Your task to perform on an android device: turn off notifications settings in the gmail app Image 0: 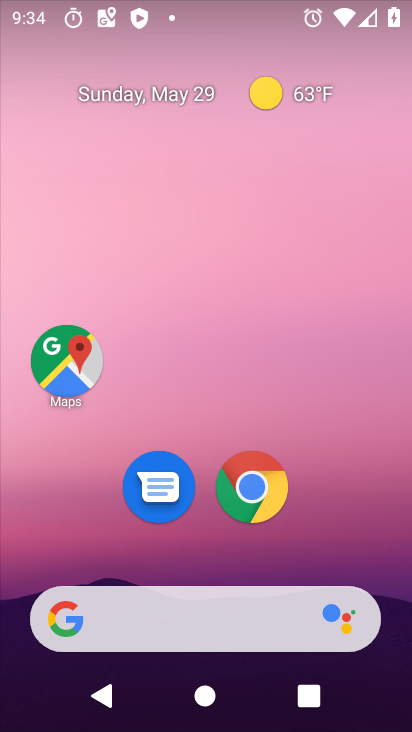
Step 0: drag from (159, 608) to (138, 91)
Your task to perform on an android device: turn off notifications settings in the gmail app Image 1: 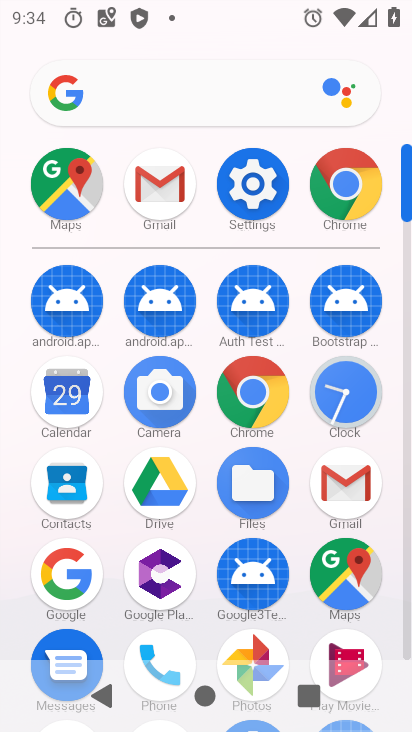
Step 1: click (346, 497)
Your task to perform on an android device: turn off notifications settings in the gmail app Image 2: 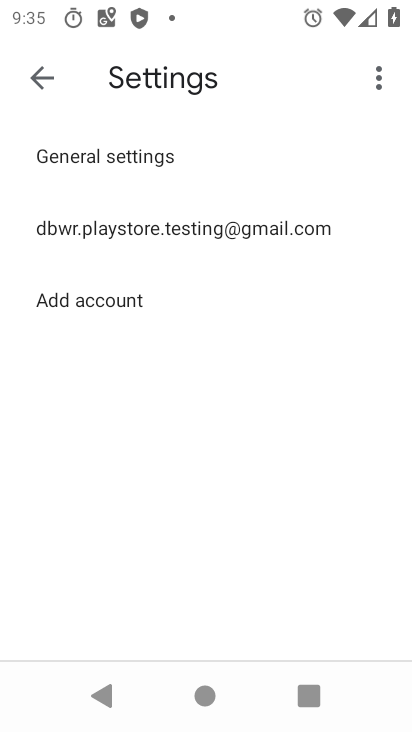
Step 2: click (42, 105)
Your task to perform on an android device: turn off notifications settings in the gmail app Image 3: 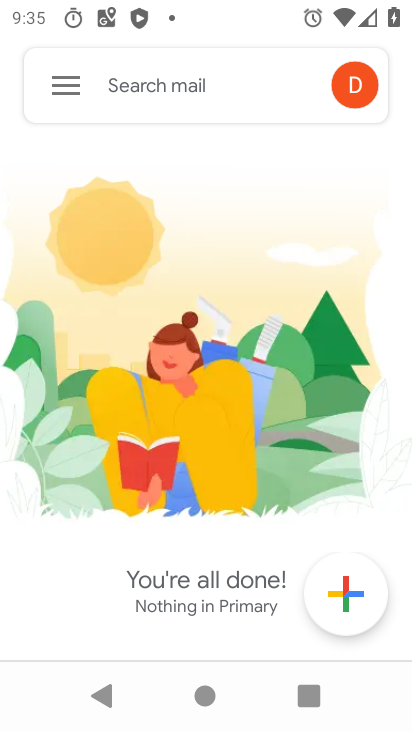
Step 3: click (61, 92)
Your task to perform on an android device: turn off notifications settings in the gmail app Image 4: 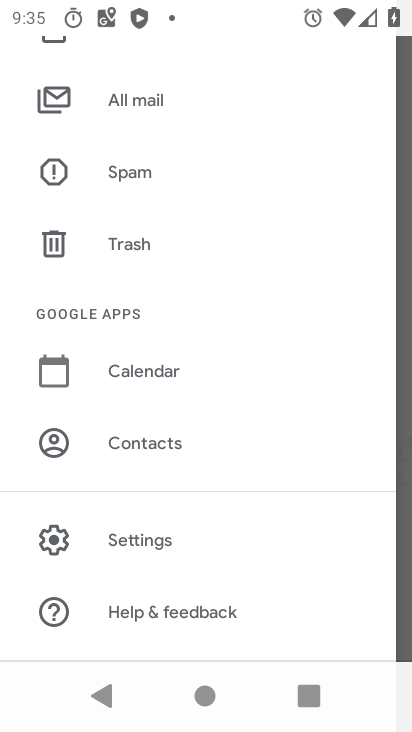
Step 4: click (109, 551)
Your task to perform on an android device: turn off notifications settings in the gmail app Image 5: 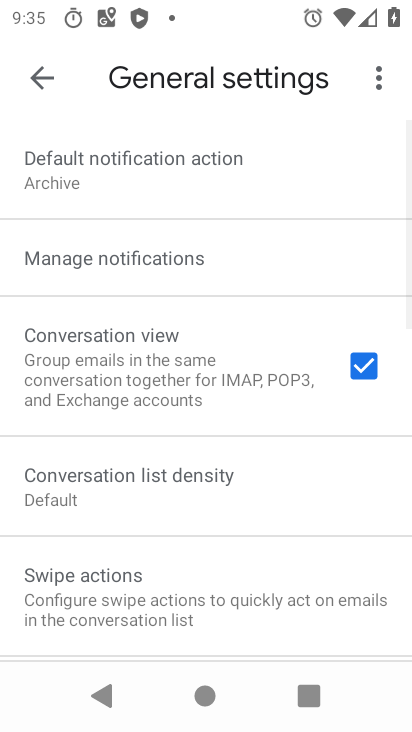
Step 5: click (230, 250)
Your task to perform on an android device: turn off notifications settings in the gmail app Image 6: 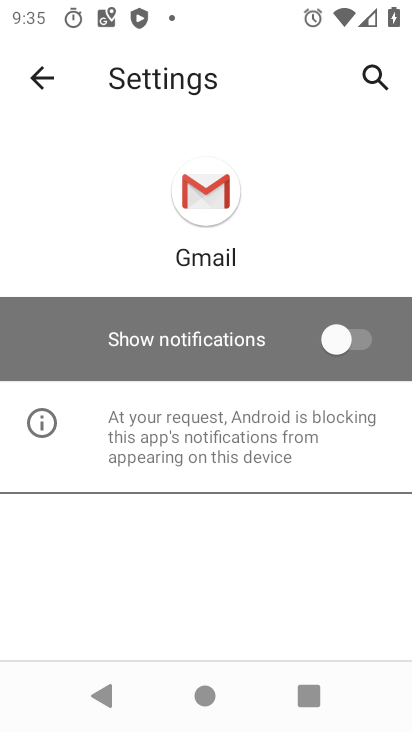
Step 6: task complete